Your task to perform on an android device: Open the phone app and click the voicemail tab. Image 0: 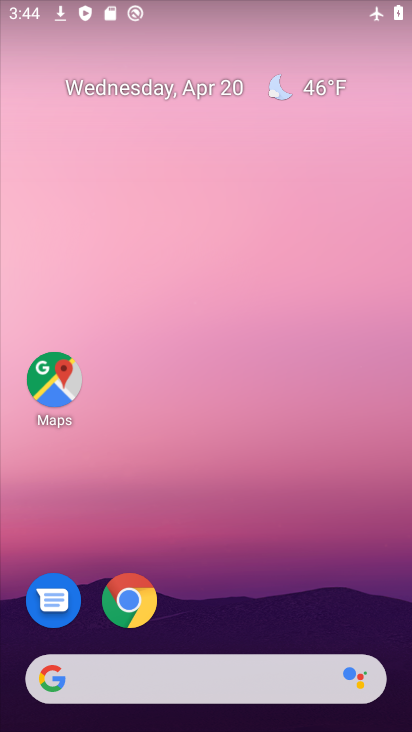
Step 0: drag from (241, 595) to (228, 32)
Your task to perform on an android device: Open the phone app and click the voicemail tab. Image 1: 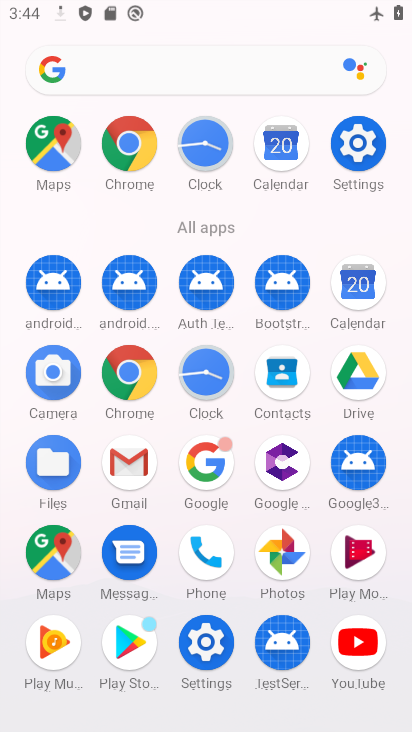
Step 1: click (199, 555)
Your task to perform on an android device: Open the phone app and click the voicemail tab. Image 2: 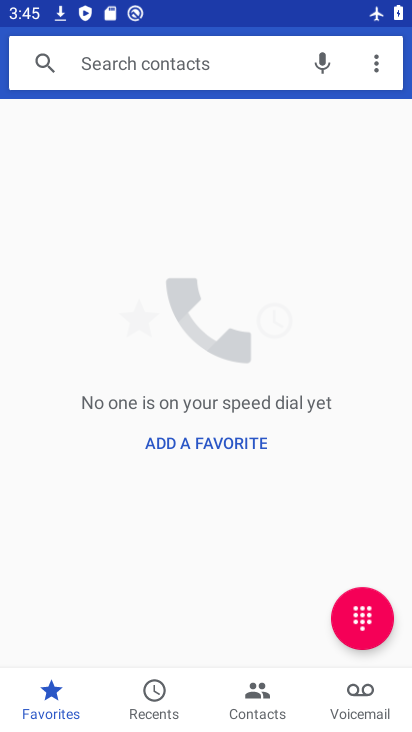
Step 2: click (371, 698)
Your task to perform on an android device: Open the phone app and click the voicemail tab. Image 3: 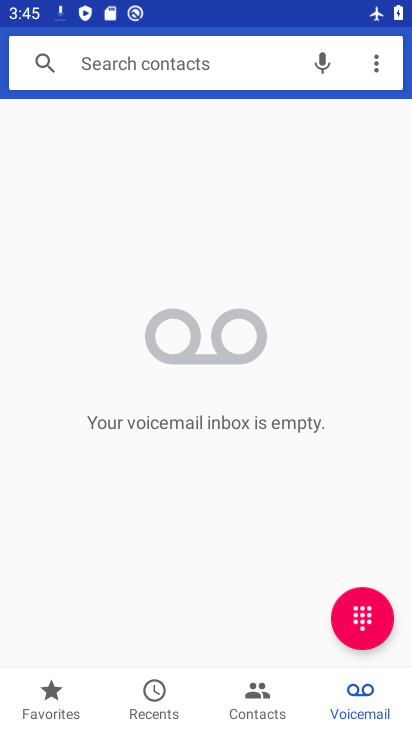
Step 3: task complete